Your task to perform on an android device: turn on translation in the chrome app Image 0: 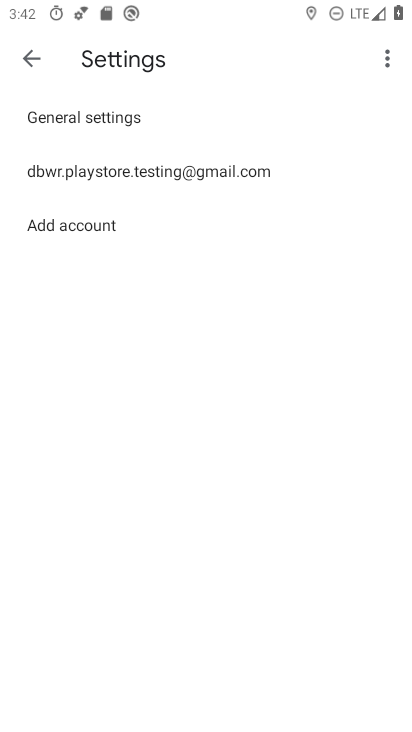
Step 0: press home button
Your task to perform on an android device: turn on translation in the chrome app Image 1: 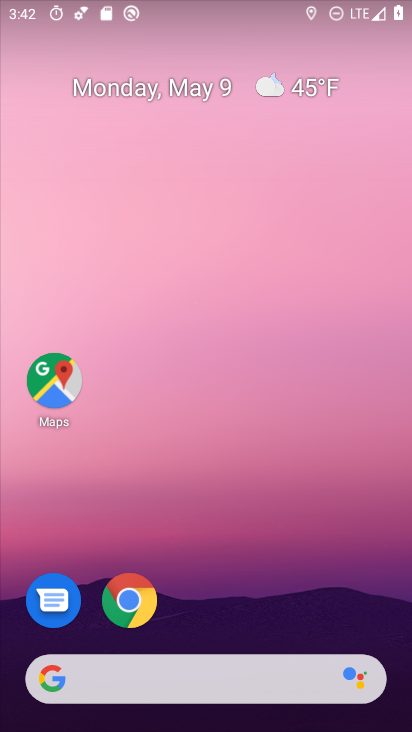
Step 1: click (142, 601)
Your task to perform on an android device: turn on translation in the chrome app Image 2: 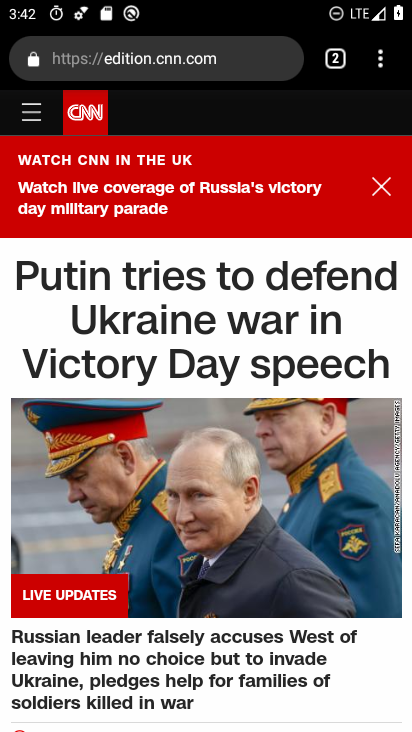
Step 2: click (376, 68)
Your task to perform on an android device: turn on translation in the chrome app Image 3: 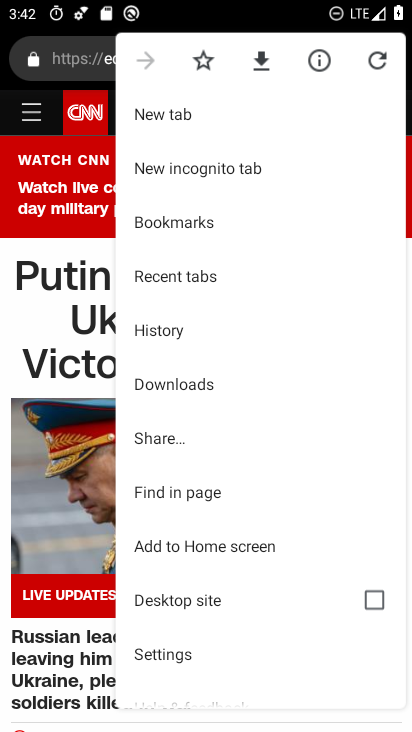
Step 3: click (182, 661)
Your task to perform on an android device: turn on translation in the chrome app Image 4: 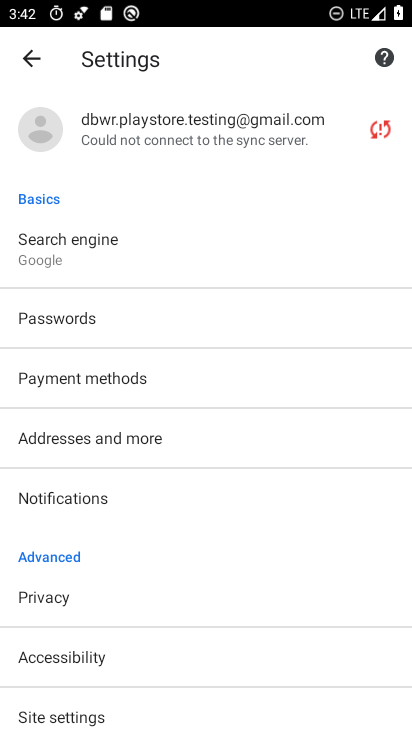
Step 4: drag from (132, 614) to (160, 347)
Your task to perform on an android device: turn on translation in the chrome app Image 5: 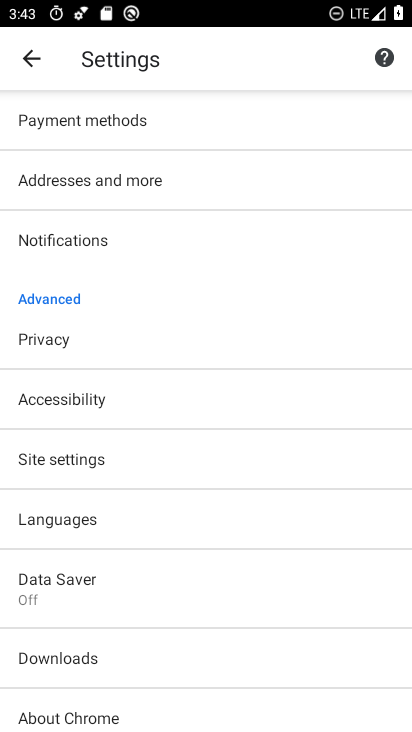
Step 5: click (90, 531)
Your task to perform on an android device: turn on translation in the chrome app Image 6: 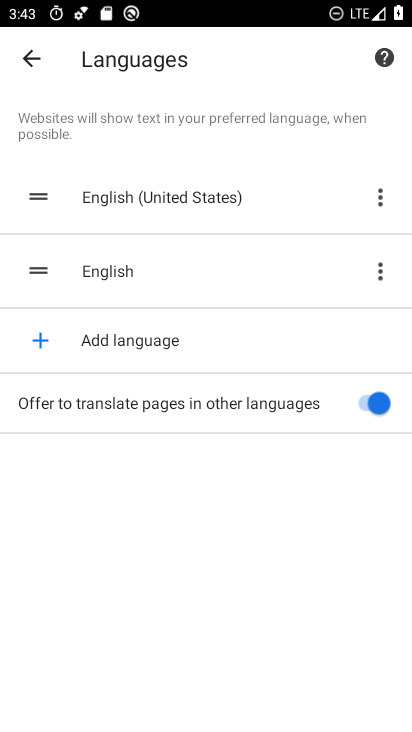
Step 6: task complete